Your task to perform on an android device: Show me popular games on the Play Store Image 0: 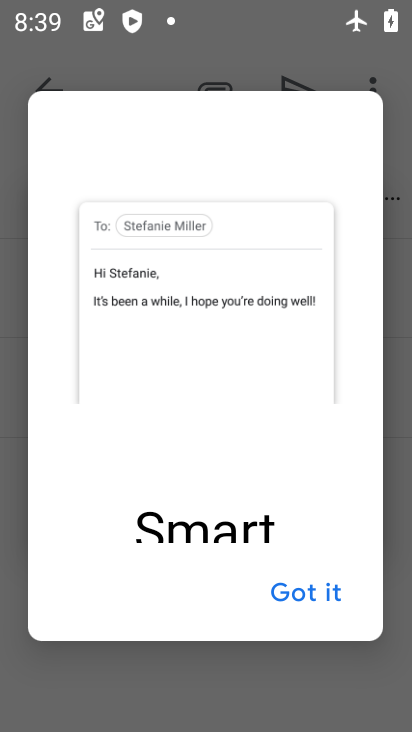
Step 0: press home button
Your task to perform on an android device: Show me popular games on the Play Store Image 1: 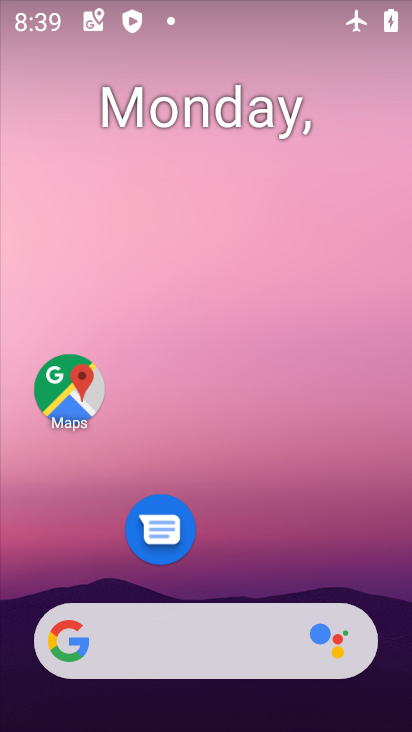
Step 1: drag from (212, 575) to (247, 139)
Your task to perform on an android device: Show me popular games on the Play Store Image 2: 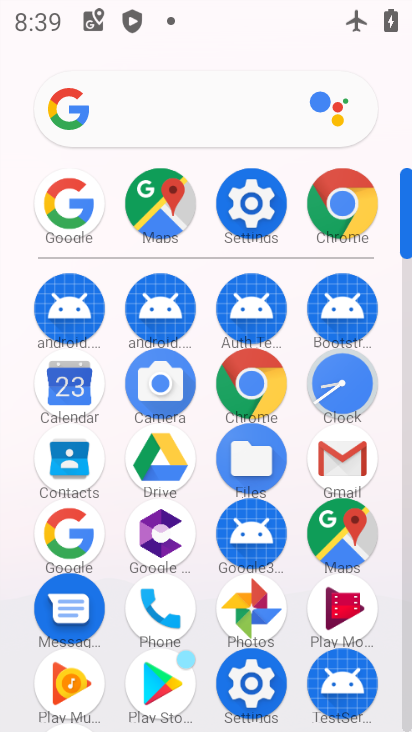
Step 2: click (168, 657)
Your task to perform on an android device: Show me popular games on the Play Store Image 3: 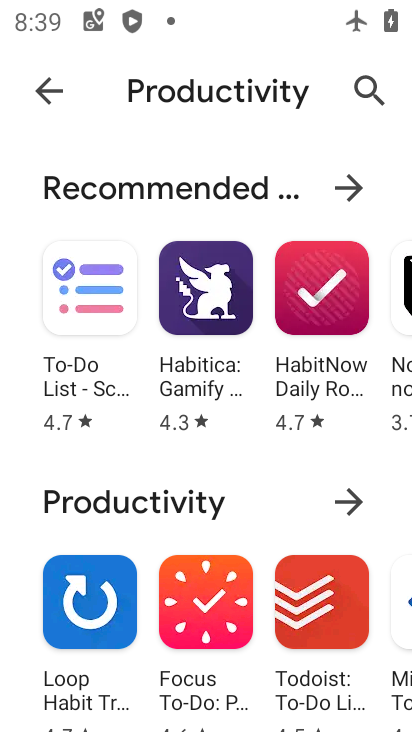
Step 3: click (60, 91)
Your task to perform on an android device: Show me popular games on the Play Store Image 4: 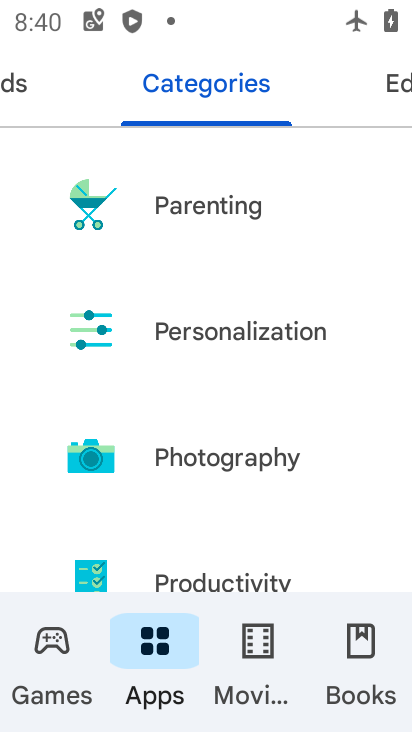
Step 4: click (53, 680)
Your task to perform on an android device: Show me popular games on the Play Store Image 5: 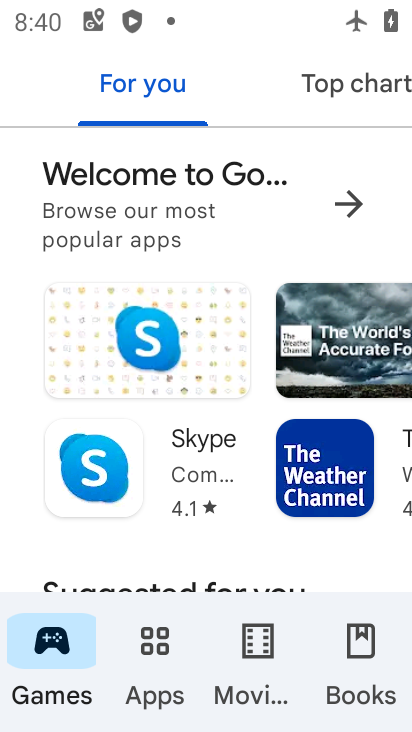
Step 5: click (326, 99)
Your task to perform on an android device: Show me popular games on the Play Store Image 6: 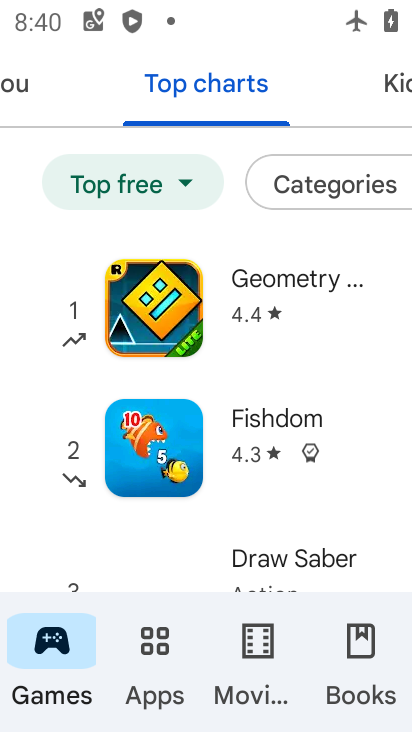
Step 6: task complete